Your task to perform on an android device: open app "TextNow: Call + Text Unlimited" Image 0: 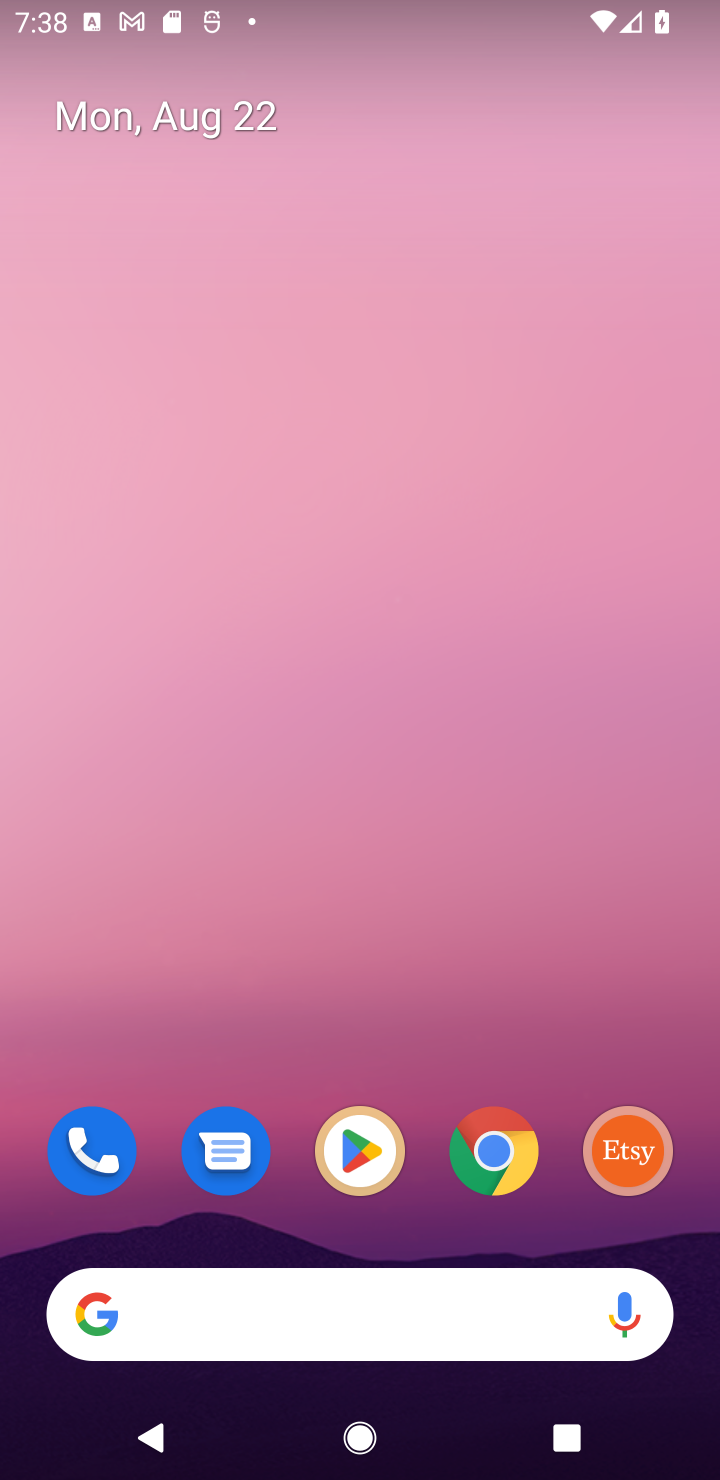
Step 0: click (348, 1167)
Your task to perform on an android device: open app "TextNow: Call + Text Unlimited" Image 1: 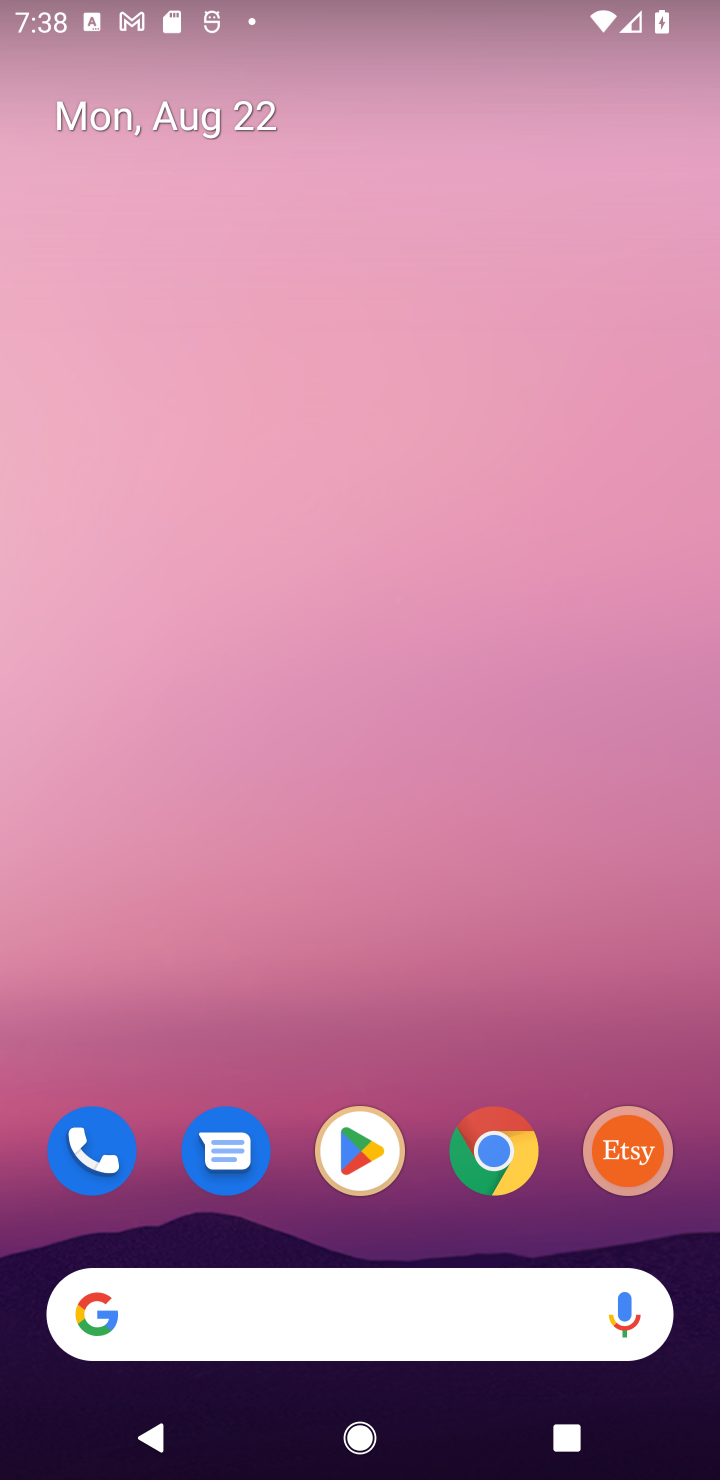
Step 1: click (348, 1170)
Your task to perform on an android device: open app "TextNow: Call + Text Unlimited" Image 2: 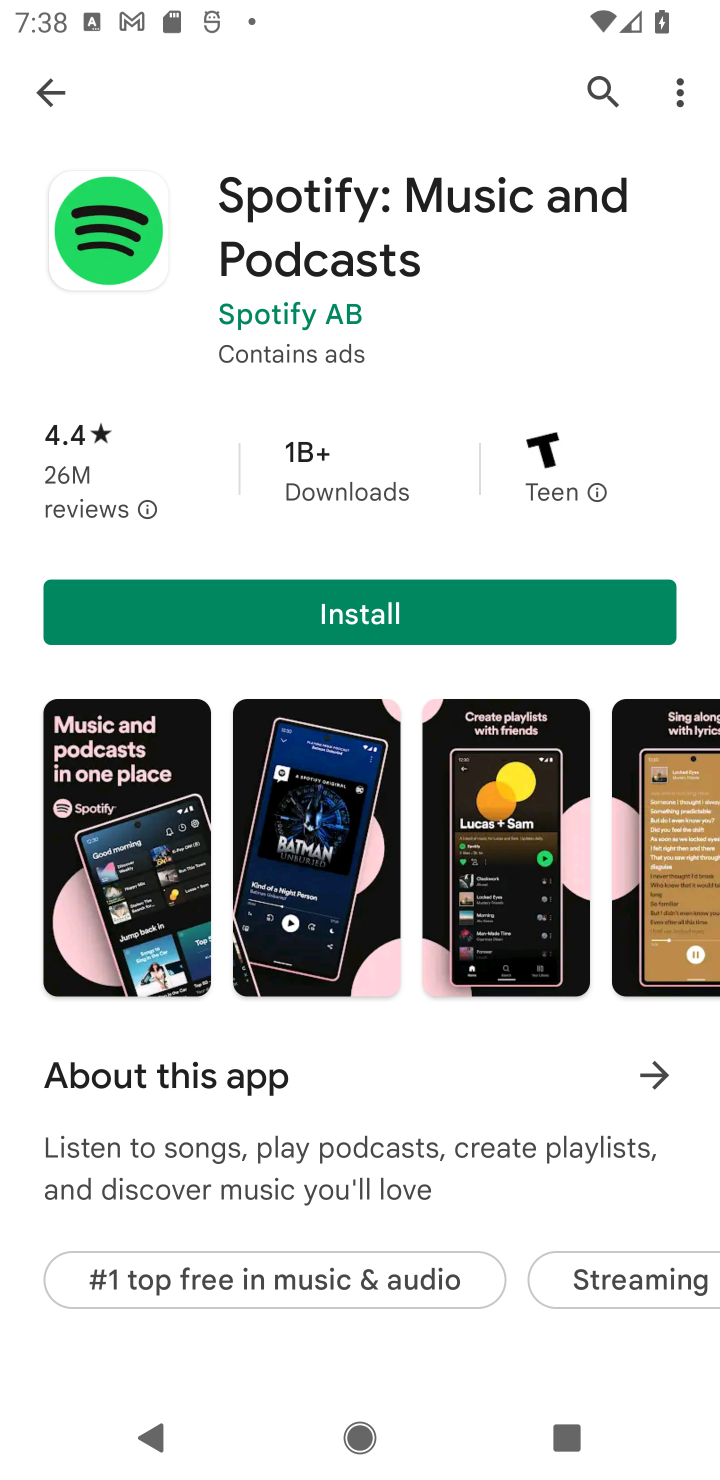
Step 2: click (594, 89)
Your task to perform on an android device: open app "TextNow: Call + Text Unlimited" Image 3: 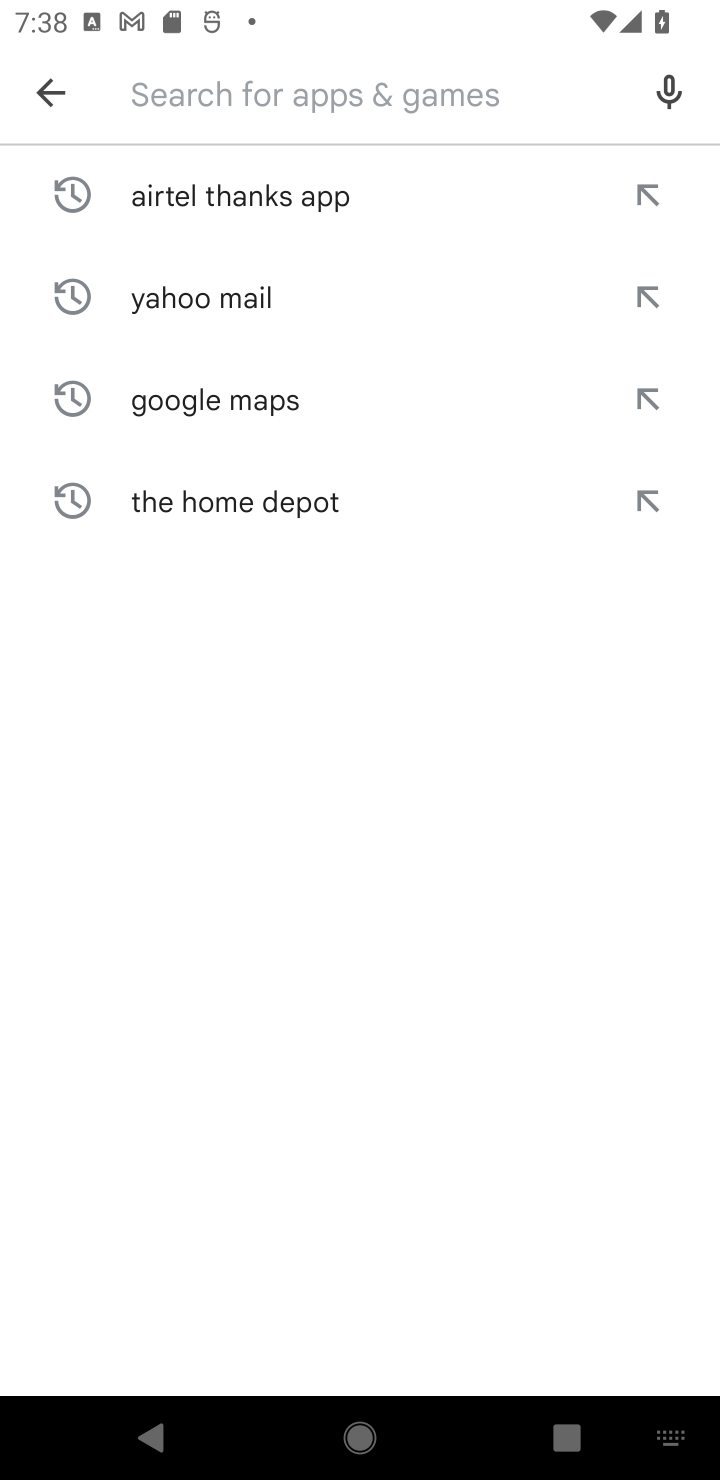
Step 3: type "TextNow: Call + Text Unlimited"
Your task to perform on an android device: open app "TextNow: Call + Text Unlimited" Image 4: 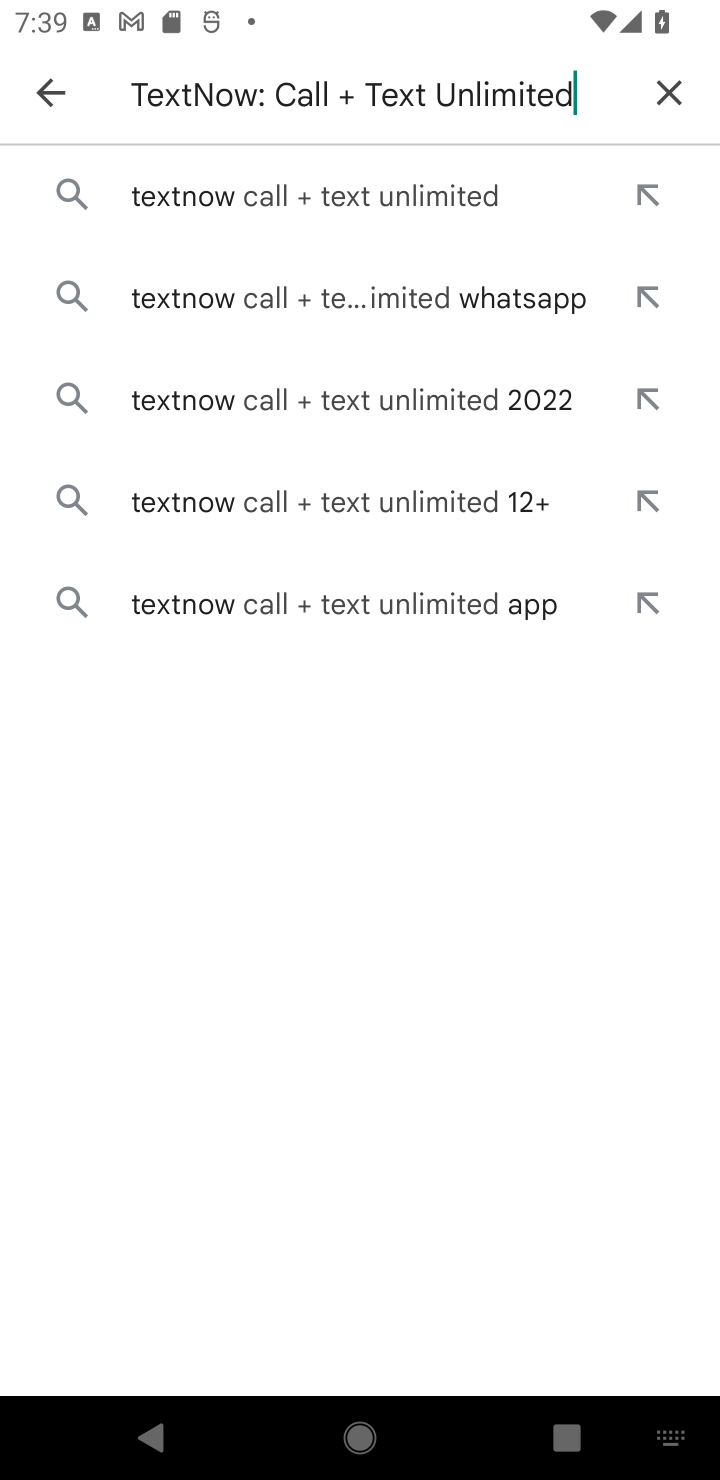
Step 4: click (270, 196)
Your task to perform on an android device: open app "TextNow: Call + Text Unlimited" Image 5: 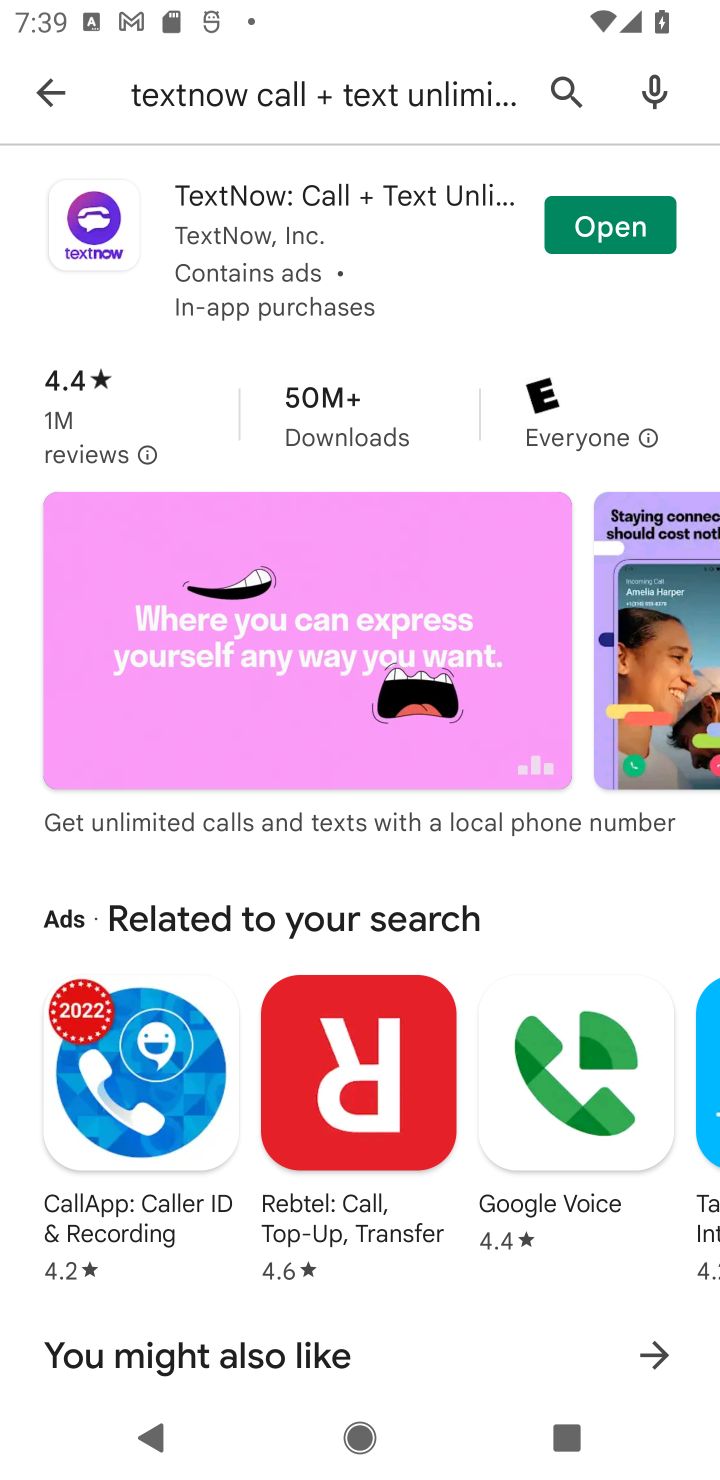
Step 5: click (624, 218)
Your task to perform on an android device: open app "TextNow: Call + Text Unlimited" Image 6: 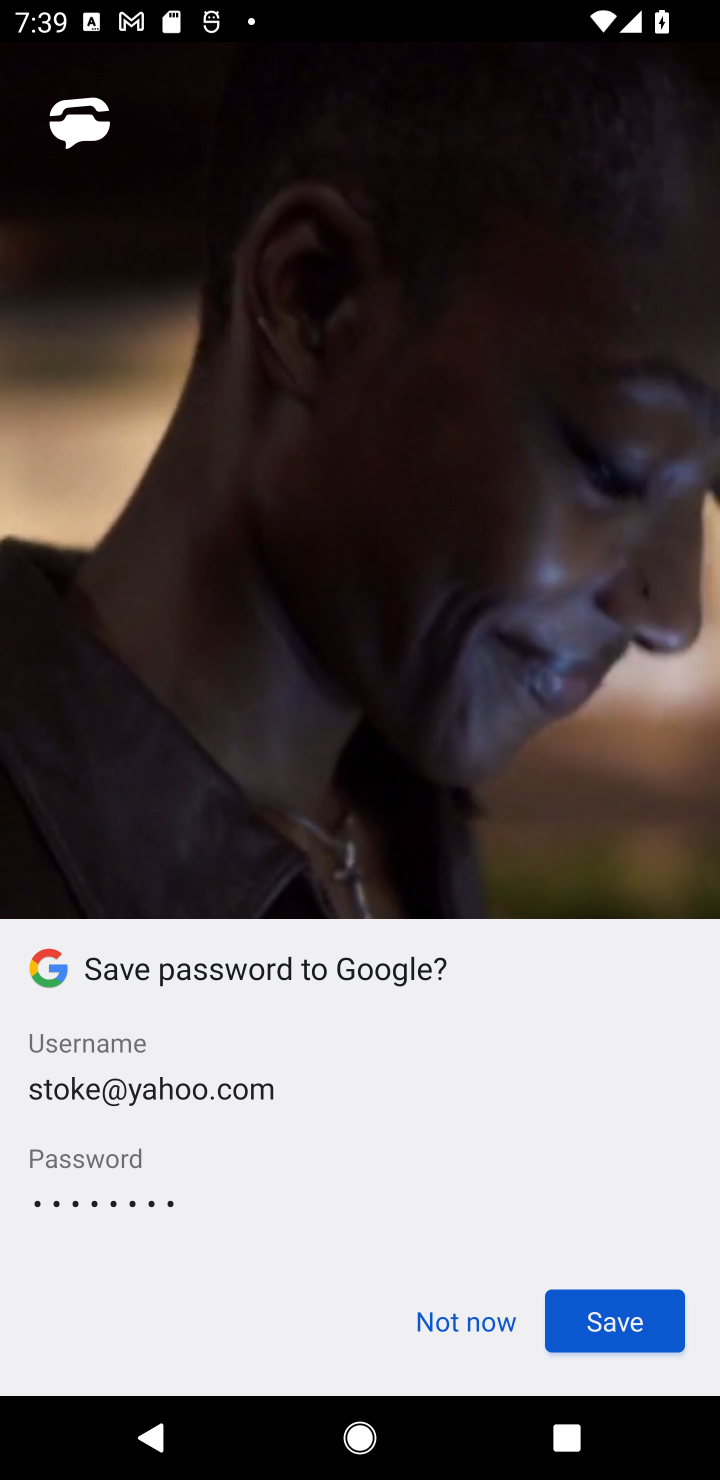
Step 6: task complete